Your task to perform on an android device: Search for Mexican restaurants on Maps Image 0: 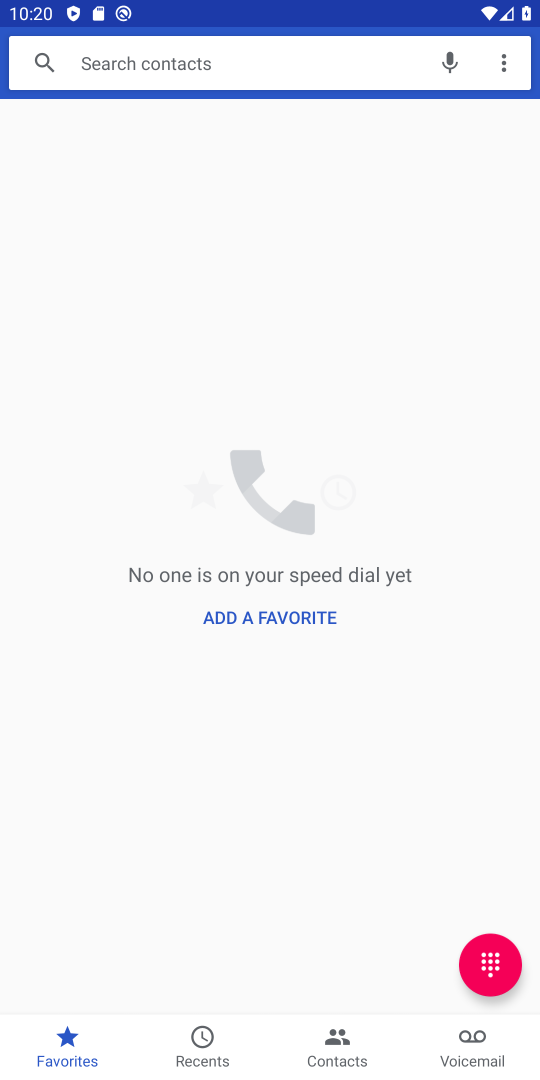
Step 0: press home button
Your task to perform on an android device: Search for Mexican restaurants on Maps Image 1: 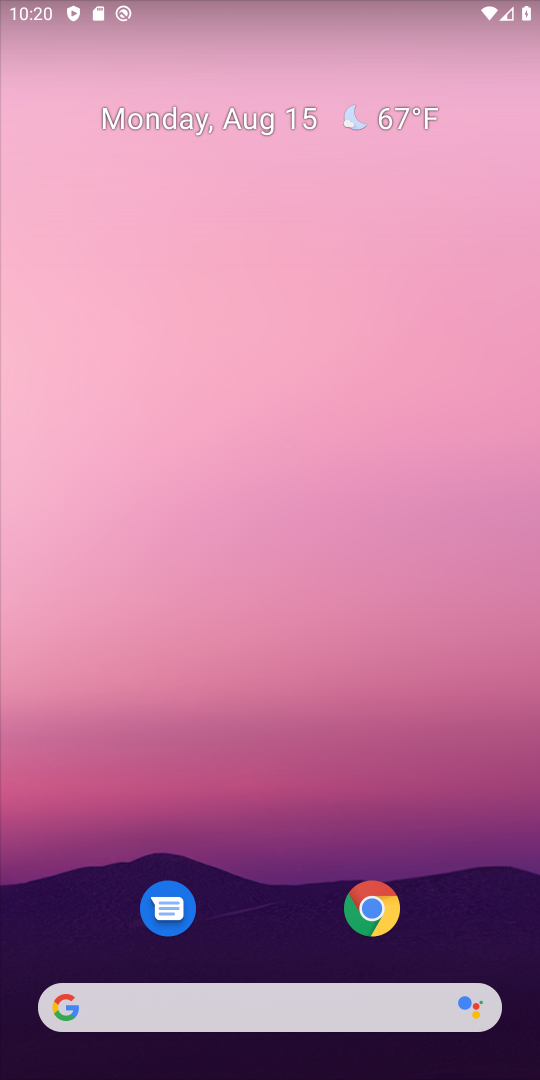
Step 1: drag from (291, 915) to (324, 431)
Your task to perform on an android device: Search for Mexican restaurants on Maps Image 2: 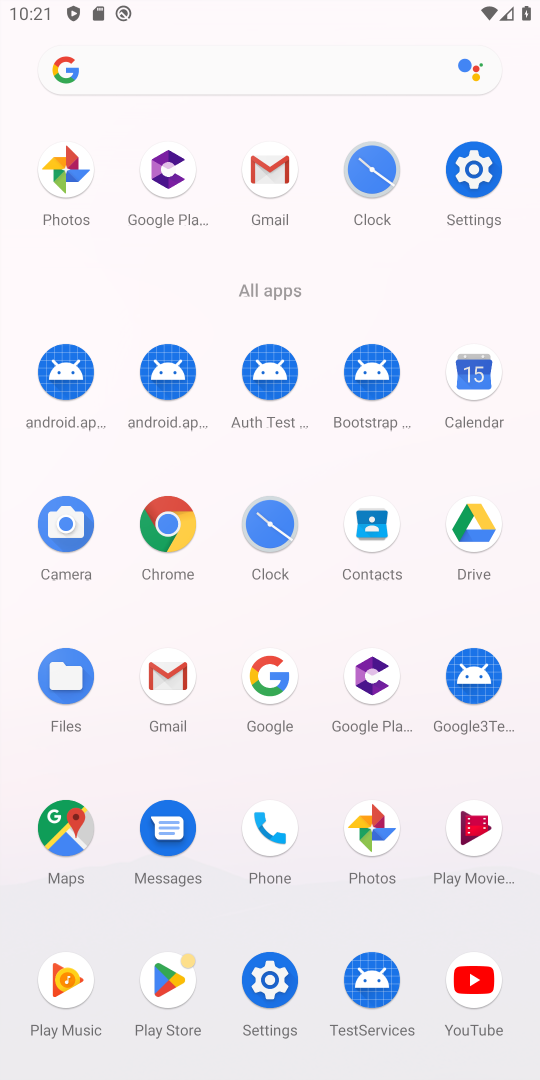
Step 2: click (67, 790)
Your task to perform on an android device: Search for Mexican restaurants on Maps Image 3: 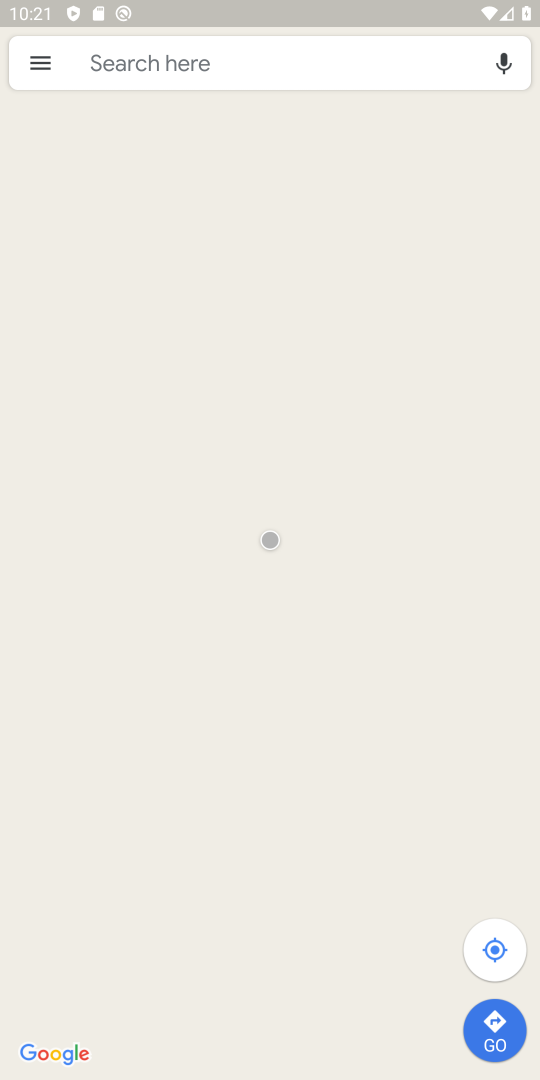
Step 3: click (227, 80)
Your task to perform on an android device: Search for Mexican restaurants on Maps Image 4: 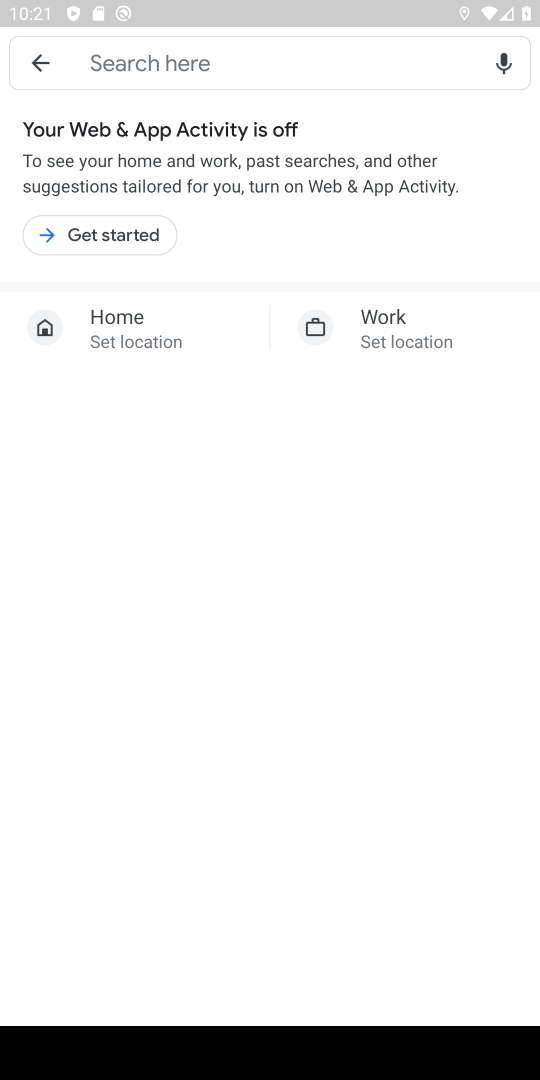
Step 4: click (227, 80)
Your task to perform on an android device: Search for Mexican restaurants on Maps Image 5: 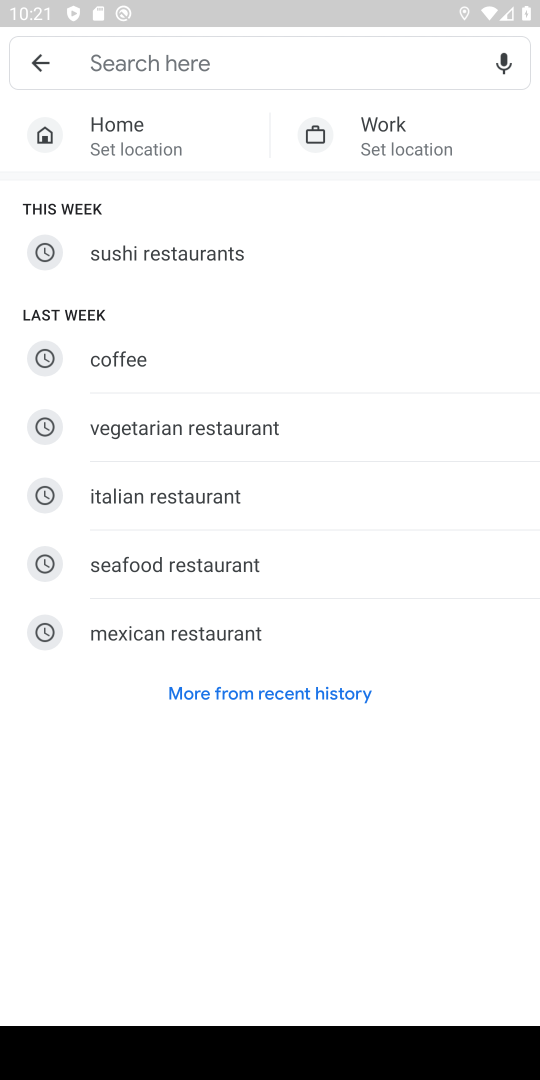
Step 5: click (288, 644)
Your task to perform on an android device: Search for Mexican restaurants on Maps Image 6: 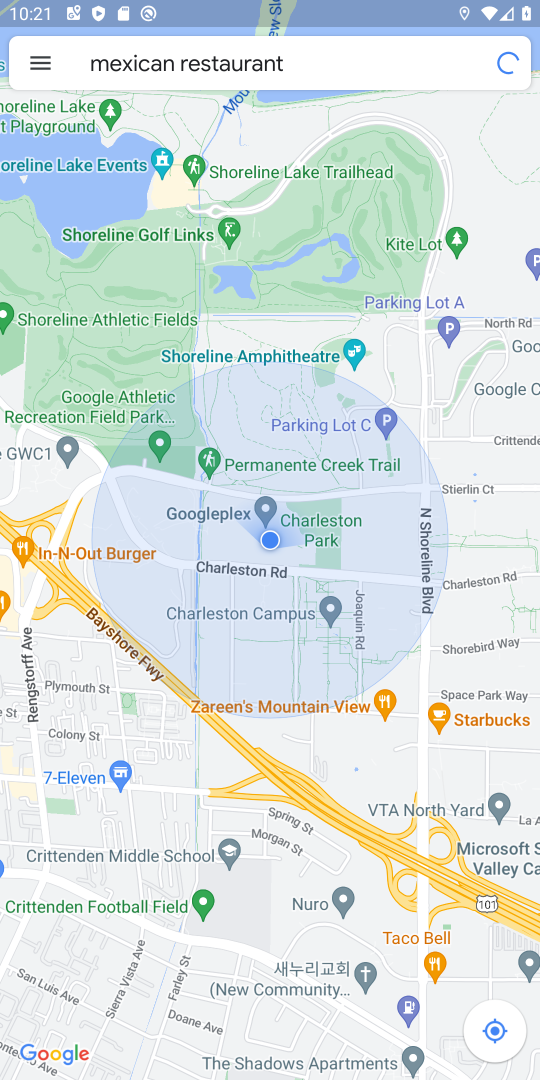
Step 6: task complete